Your task to perform on an android device: Open Google Image 0: 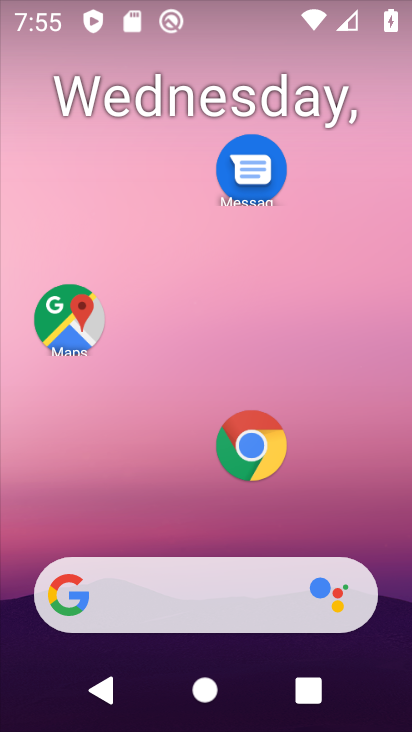
Step 0: drag from (270, 613) to (233, 257)
Your task to perform on an android device: Open Google Image 1: 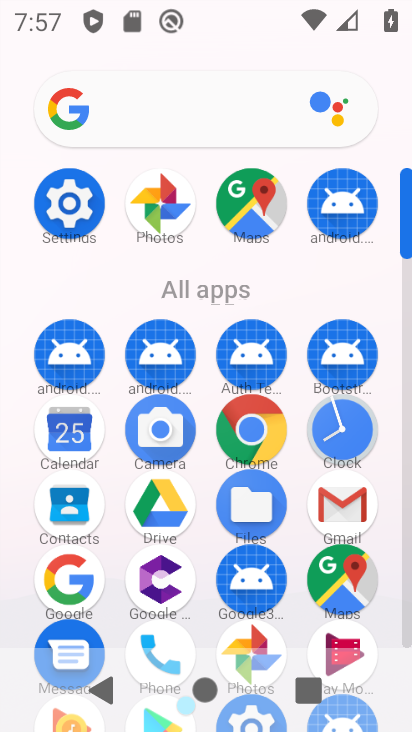
Step 1: click (66, 585)
Your task to perform on an android device: Open Google Image 2: 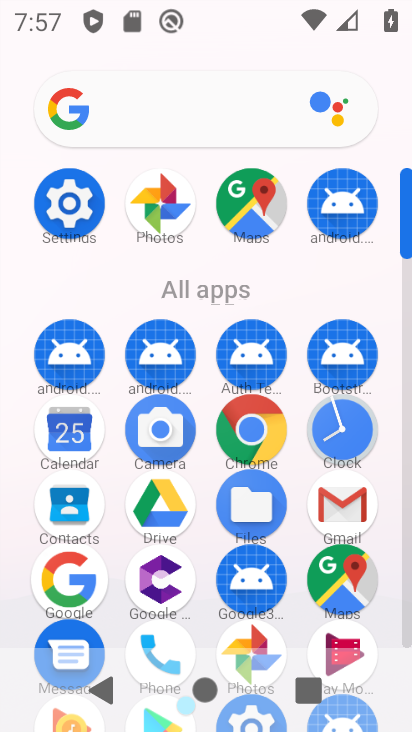
Step 2: click (70, 581)
Your task to perform on an android device: Open Google Image 3: 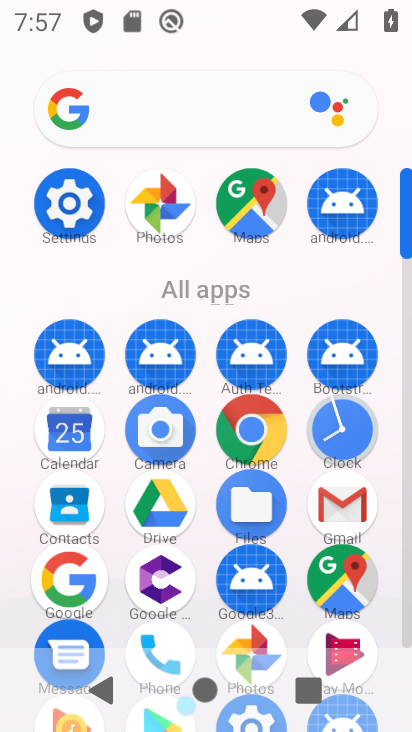
Step 3: click (70, 581)
Your task to perform on an android device: Open Google Image 4: 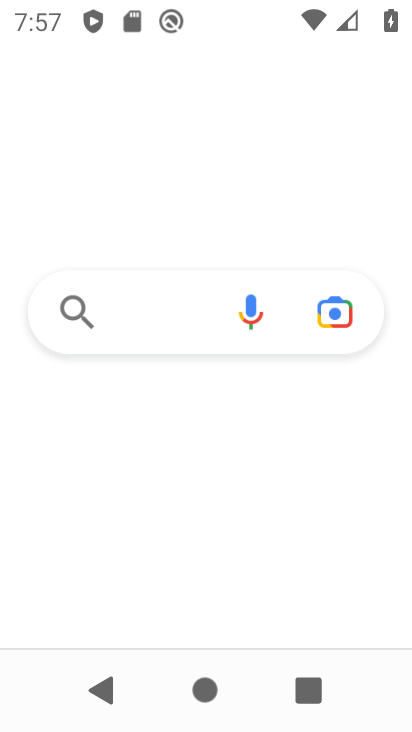
Step 4: click (75, 589)
Your task to perform on an android device: Open Google Image 5: 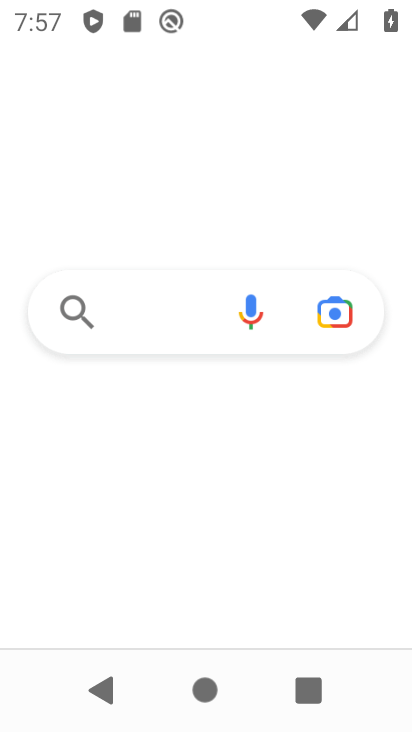
Step 5: click (75, 589)
Your task to perform on an android device: Open Google Image 6: 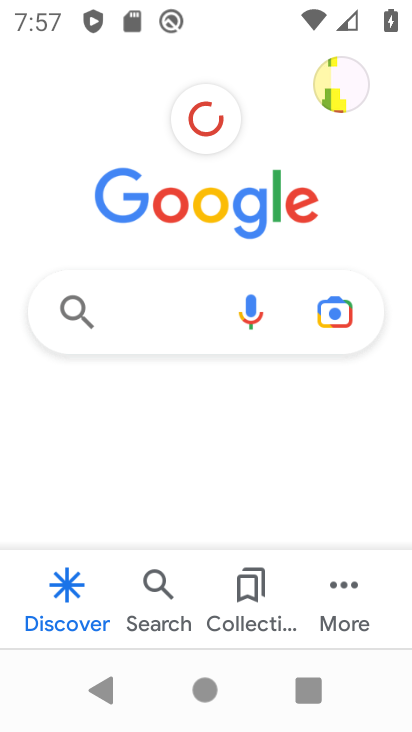
Step 6: task complete